Your task to perform on an android device: Show me productivity apps on the Play Store Image 0: 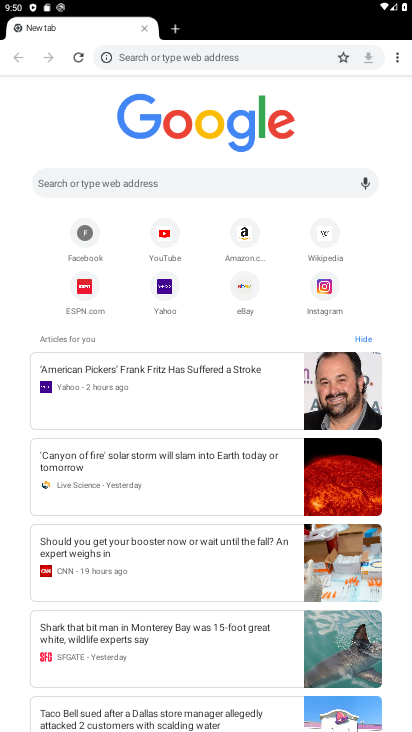
Step 0: press home button
Your task to perform on an android device: Show me productivity apps on the Play Store Image 1: 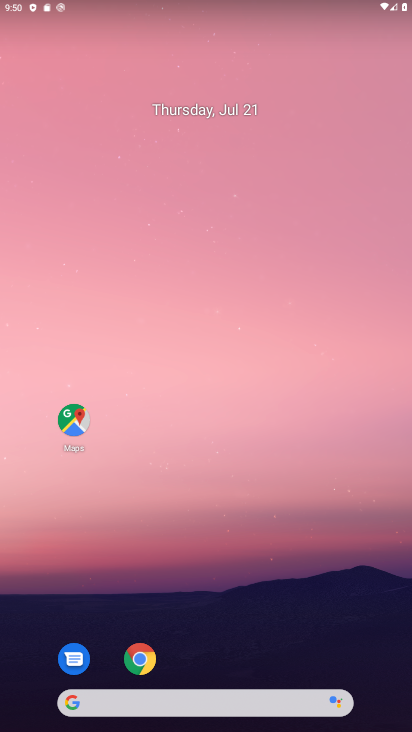
Step 1: drag from (170, 692) to (170, 267)
Your task to perform on an android device: Show me productivity apps on the Play Store Image 2: 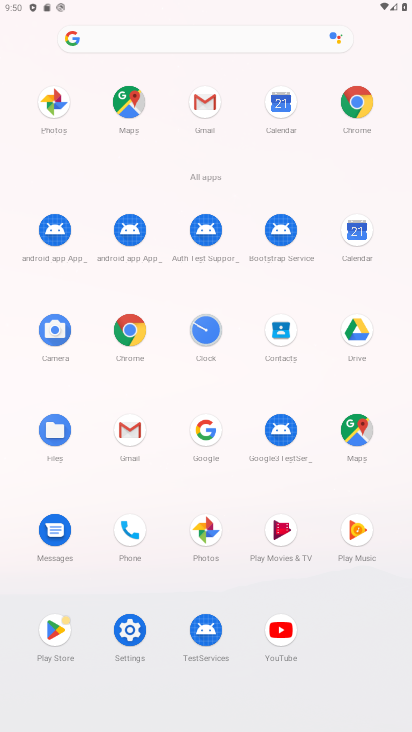
Step 2: click (51, 631)
Your task to perform on an android device: Show me productivity apps on the Play Store Image 3: 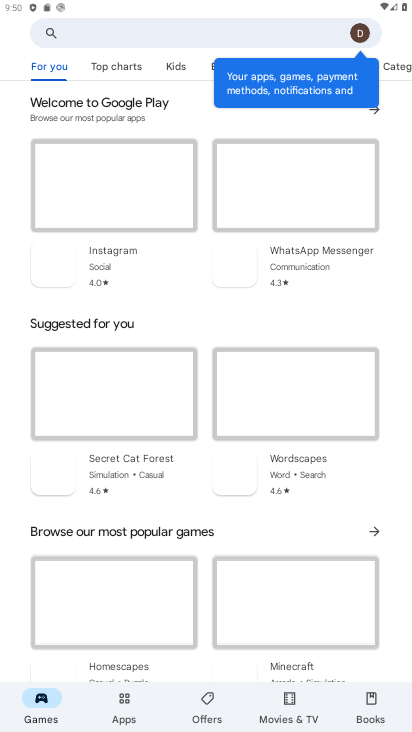
Step 3: click (121, 699)
Your task to perform on an android device: Show me productivity apps on the Play Store Image 4: 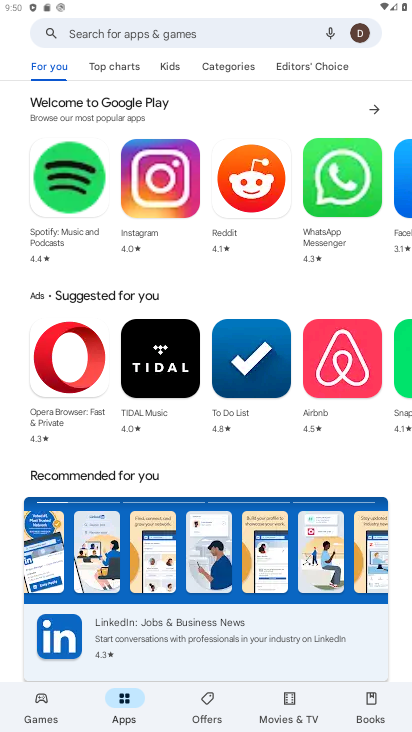
Step 4: task complete